Your task to perform on an android device: snooze an email in the gmail app Image 0: 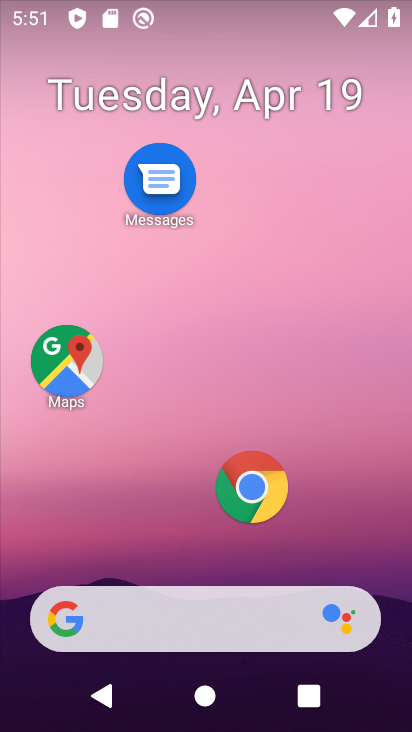
Step 0: drag from (236, 64) to (236, 22)
Your task to perform on an android device: snooze an email in the gmail app Image 1: 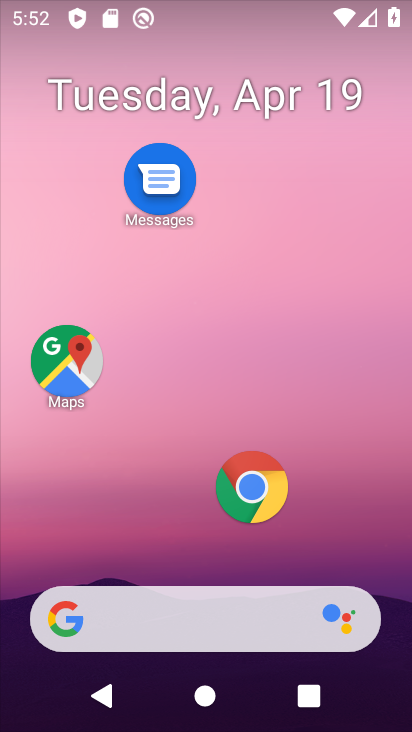
Step 1: drag from (207, 549) to (237, 73)
Your task to perform on an android device: snooze an email in the gmail app Image 2: 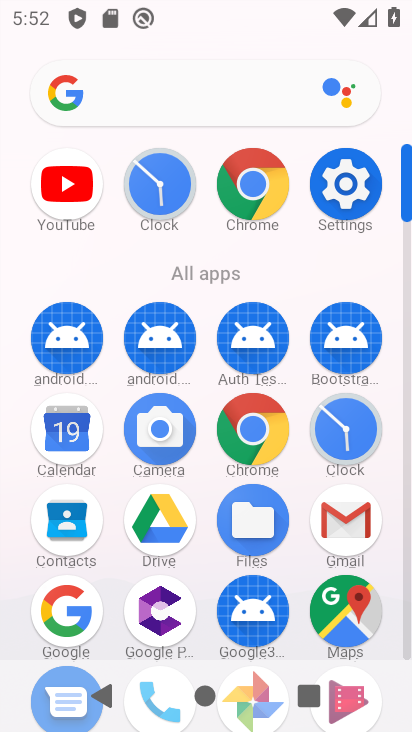
Step 2: click (345, 511)
Your task to perform on an android device: snooze an email in the gmail app Image 3: 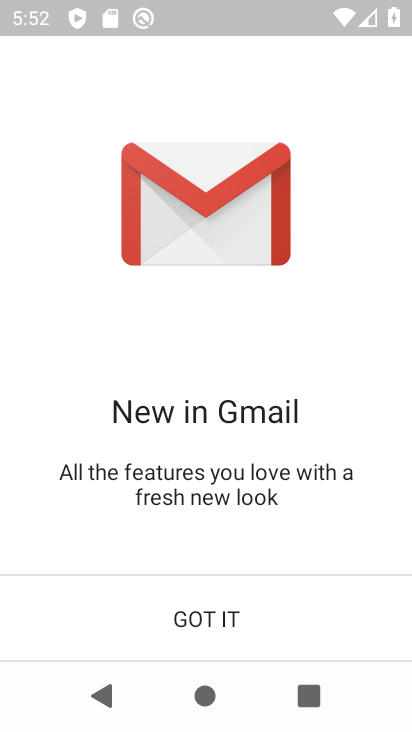
Step 3: click (214, 630)
Your task to perform on an android device: snooze an email in the gmail app Image 4: 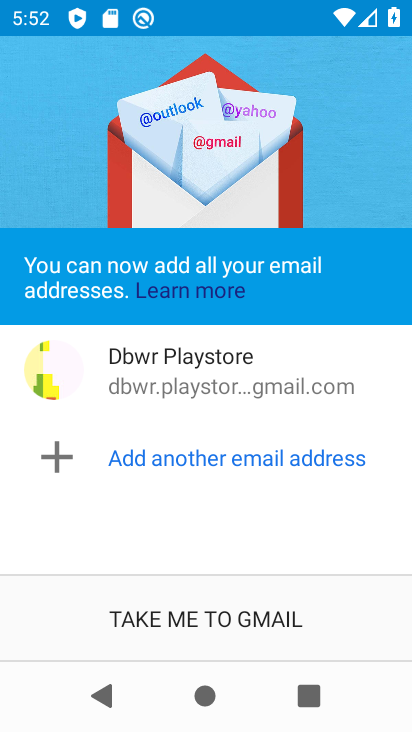
Step 4: press home button
Your task to perform on an android device: snooze an email in the gmail app Image 5: 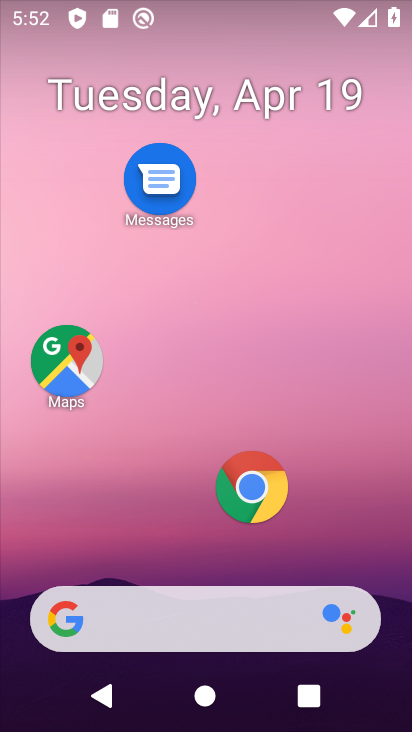
Step 5: drag from (199, 553) to (197, 10)
Your task to perform on an android device: snooze an email in the gmail app Image 6: 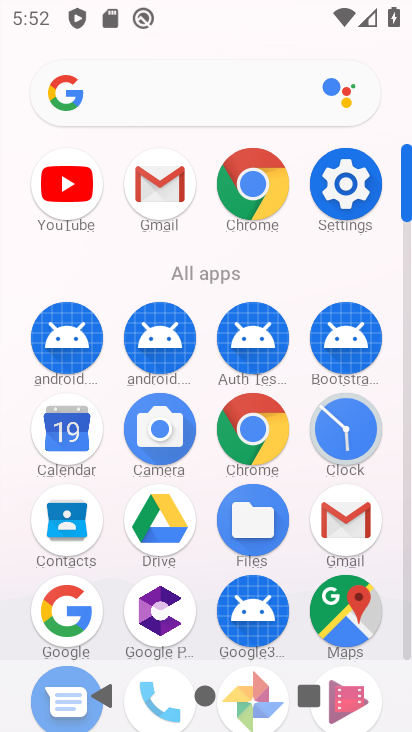
Step 6: click (339, 520)
Your task to perform on an android device: snooze an email in the gmail app Image 7: 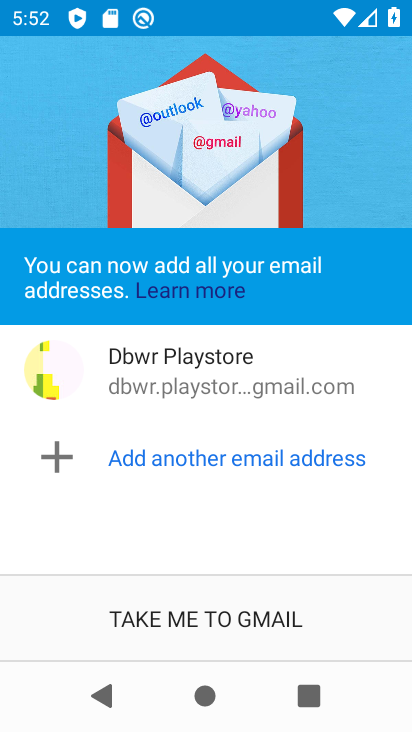
Step 7: click (200, 631)
Your task to perform on an android device: snooze an email in the gmail app Image 8: 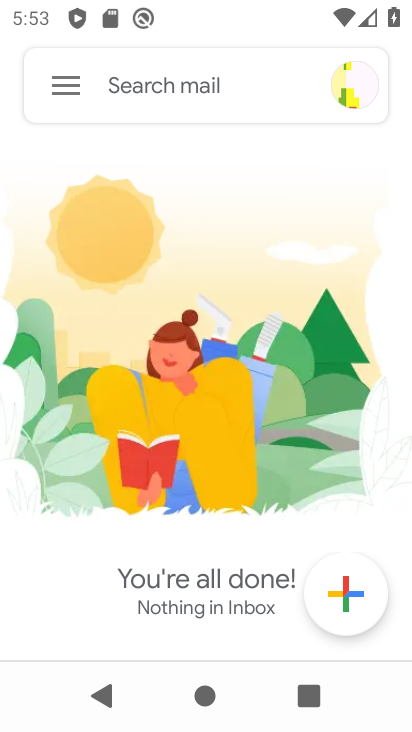
Step 8: click (66, 87)
Your task to perform on an android device: snooze an email in the gmail app Image 9: 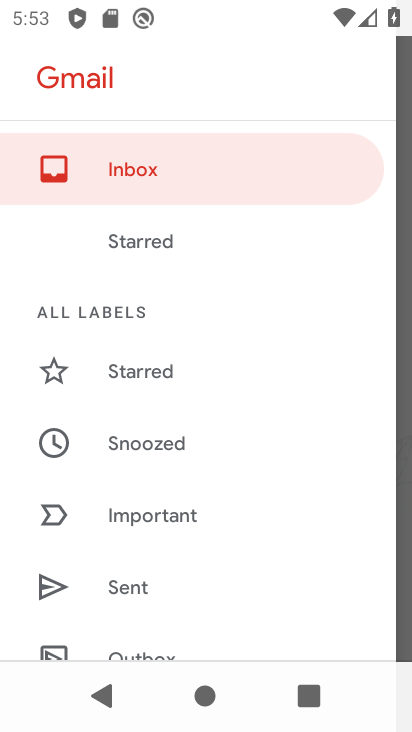
Step 9: drag from (153, 551) to (163, 164)
Your task to perform on an android device: snooze an email in the gmail app Image 10: 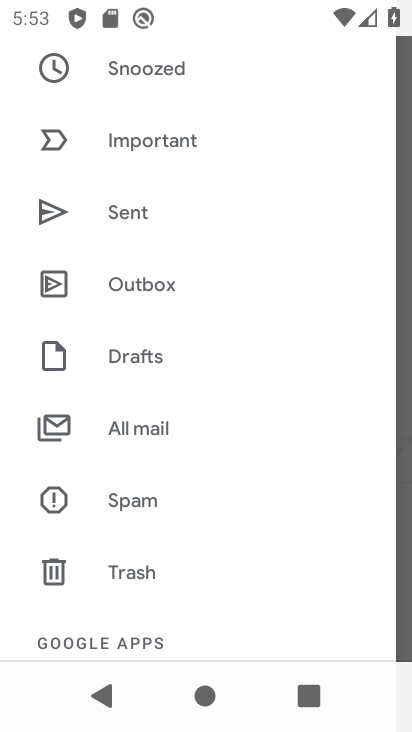
Step 10: click (156, 426)
Your task to perform on an android device: snooze an email in the gmail app Image 11: 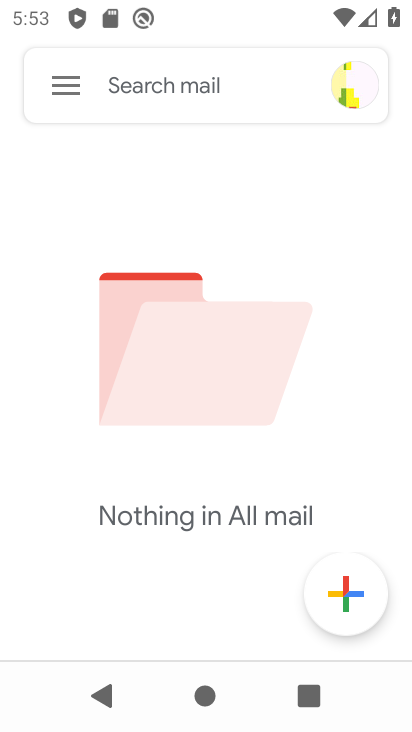
Step 11: task complete